Your task to perform on an android device: clear all cookies in the chrome app Image 0: 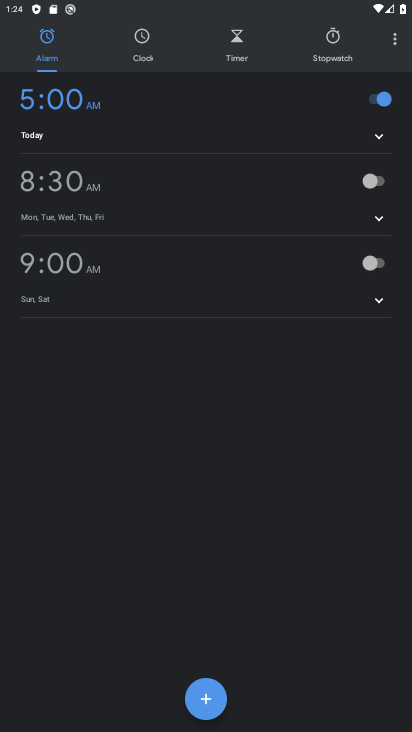
Step 0: press home button
Your task to perform on an android device: clear all cookies in the chrome app Image 1: 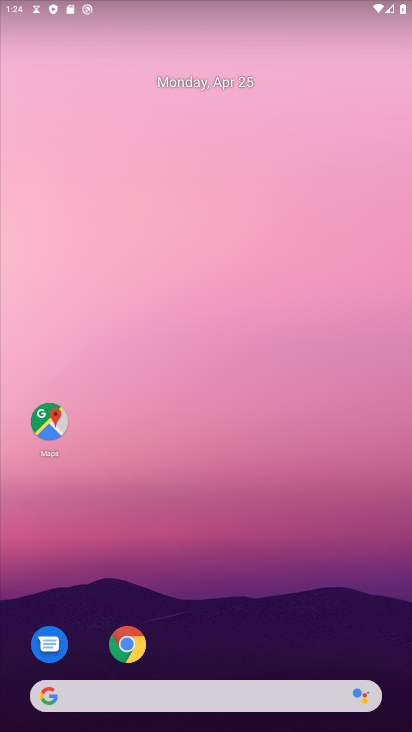
Step 1: click (133, 650)
Your task to perform on an android device: clear all cookies in the chrome app Image 2: 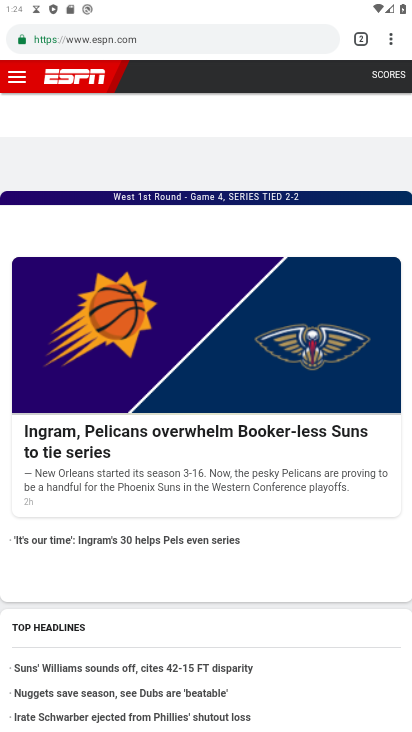
Step 2: drag from (391, 40) to (249, 513)
Your task to perform on an android device: clear all cookies in the chrome app Image 3: 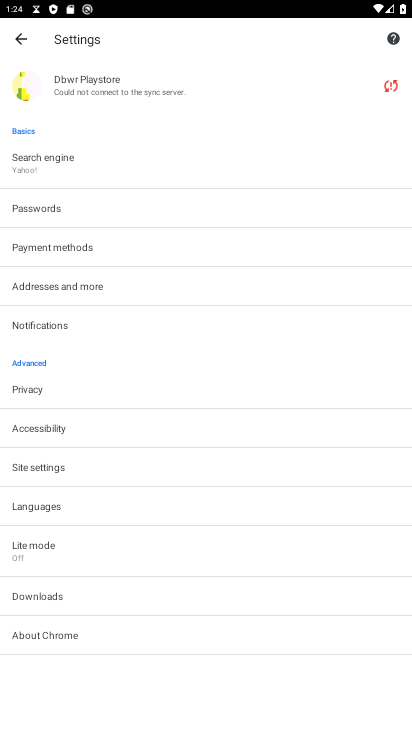
Step 3: click (34, 391)
Your task to perform on an android device: clear all cookies in the chrome app Image 4: 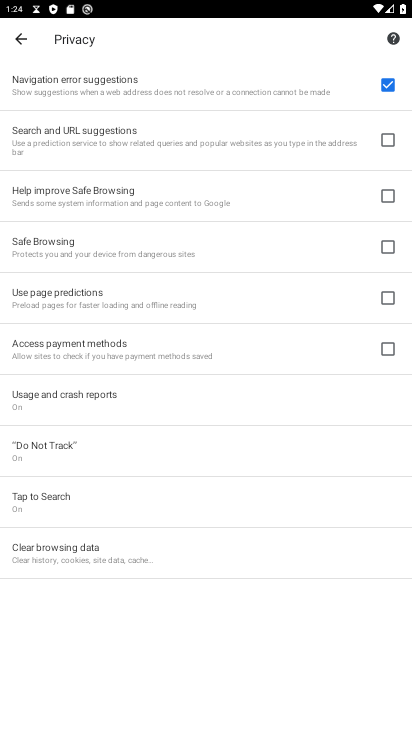
Step 4: click (55, 554)
Your task to perform on an android device: clear all cookies in the chrome app Image 5: 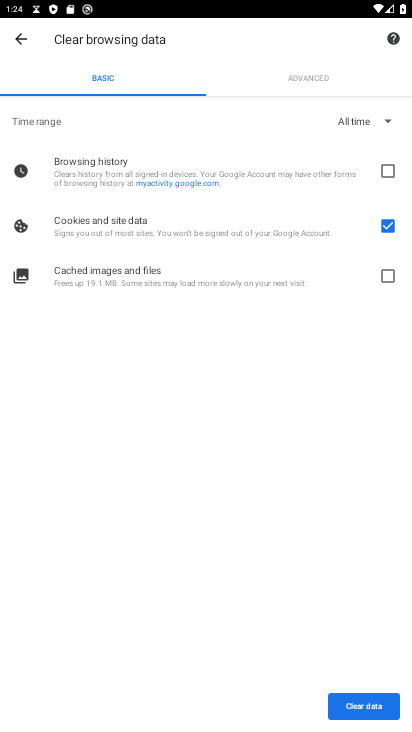
Step 5: click (367, 708)
Your task to perform on an android device: clear all cookies in the chrome app Image 6: 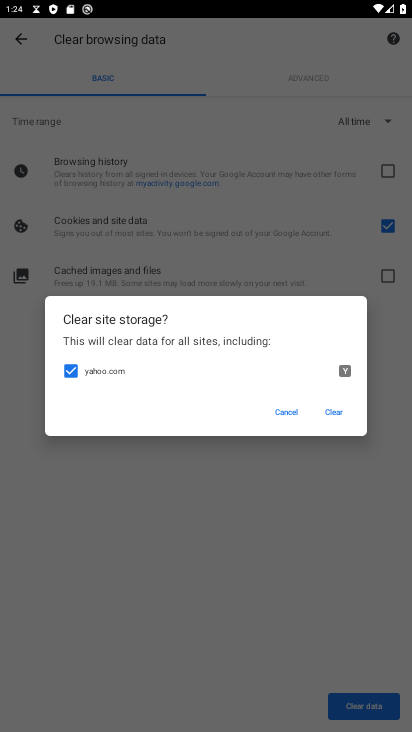
Step 6: click (329, 411)
Your task to perform on an android device: clear all cookies in the chrome app Image 7: 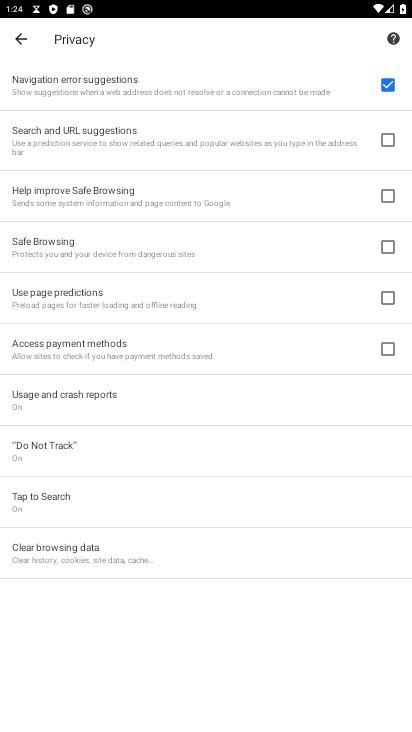
Step 7: task complete